Your task to perform on an android device: toggle improve location accuracy Image 0: 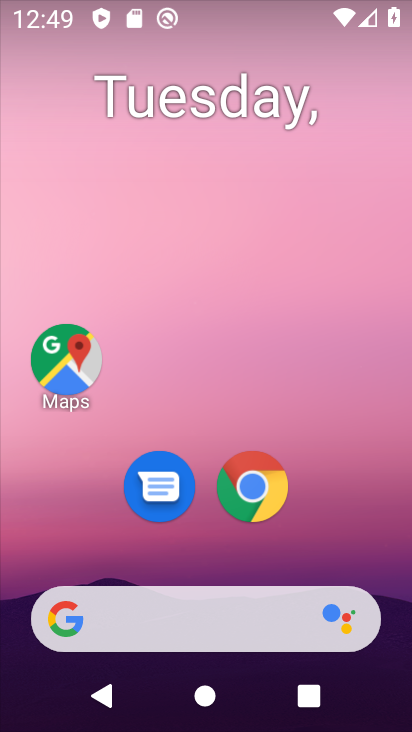
Step 0: drag from (336, 545) to (264, 104)
Your task to perform on an android device: toggle improve location accuracy Image 1: 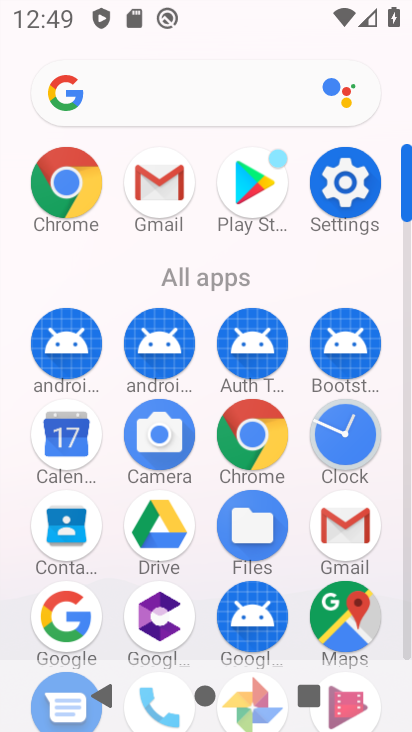
Step 1: click (345, 156)
Your task to perform on an android device: toggle improve location accuracy Image 2: 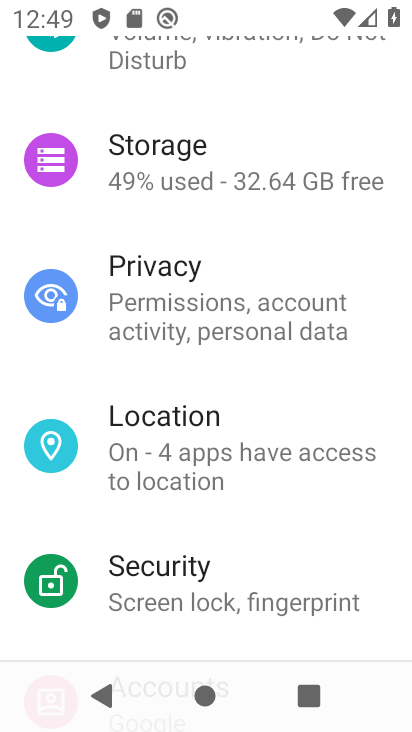
Step 2: click (305, 464)
Your task to perform on an android device: toggle improve location accuracy Image 3: 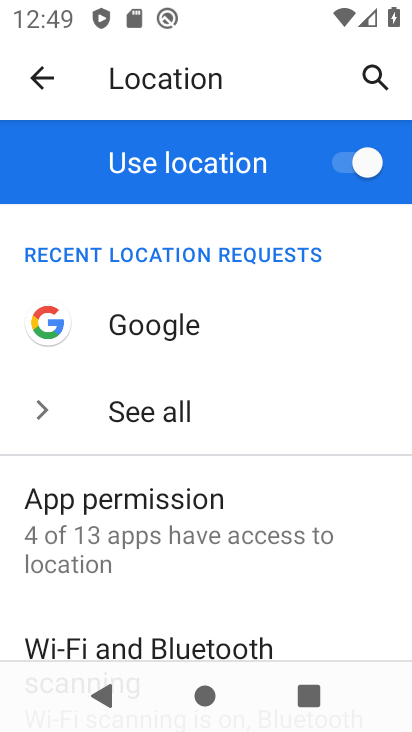
Step 3: drag from (308, 648) to (223, 265)
Your task to perform on an android device: toggle improve location accuracy Image 4: 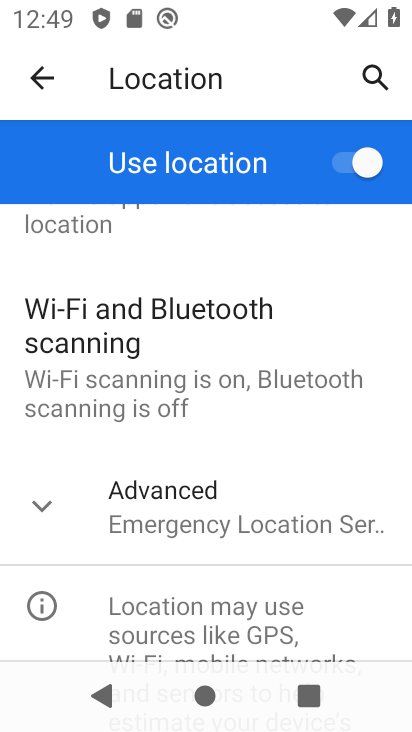
Step 4: click (289, 499)
Your task to perform on an android device: toggle improve location accuracy Image 5: 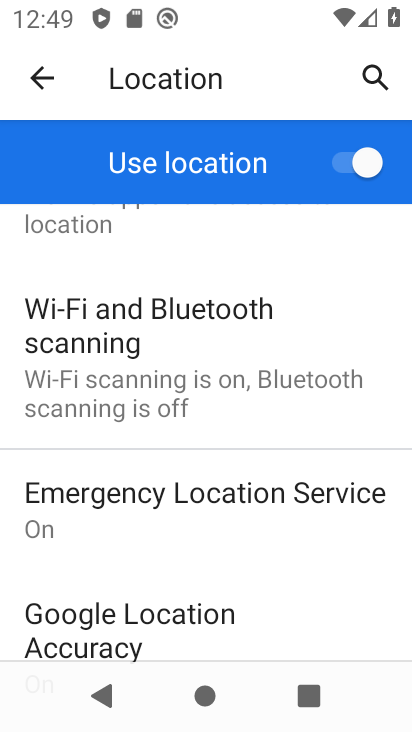
Step 5: drag from (304, 604) to (266, 340)
Your task to perform on an android device: toggle improve location accuracy Image 6: 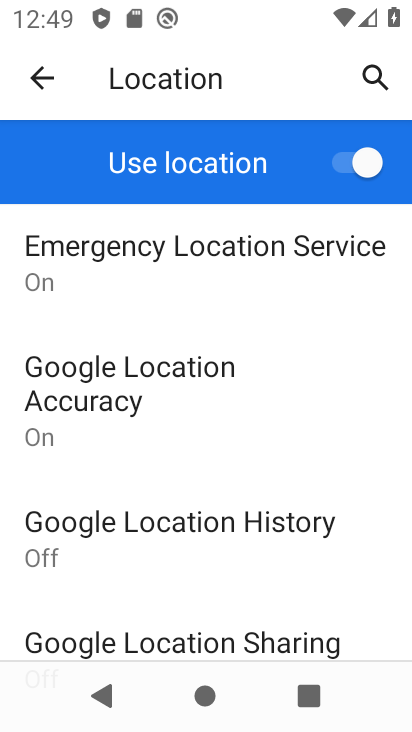
Step 6: click (271, 364)
Your task to perform on an android device: toggle improve location accuracy Image 7: 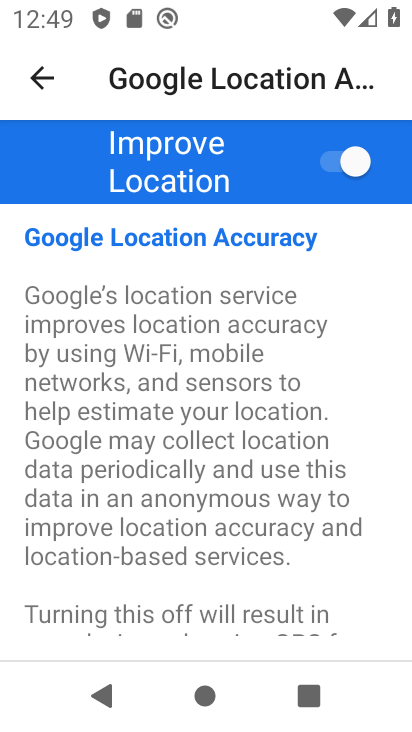
Step 7: click (339, 178)
Your task to perform on an android device: toggle improve location accuracy Image 8: 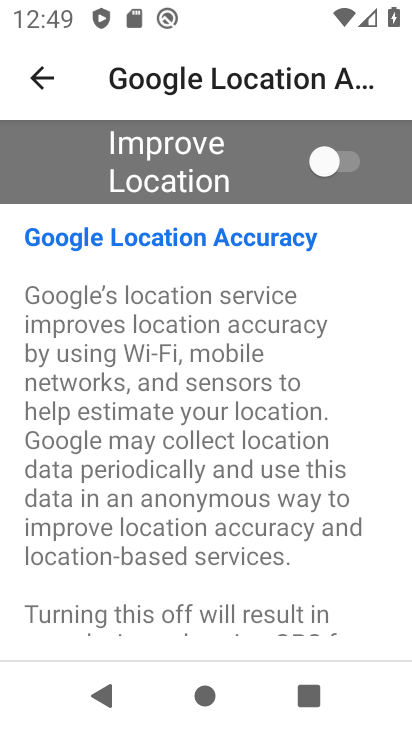
Step 8: task complete